Your task to perform on an android device: uninstall "Microsoft Excel" Image 0: 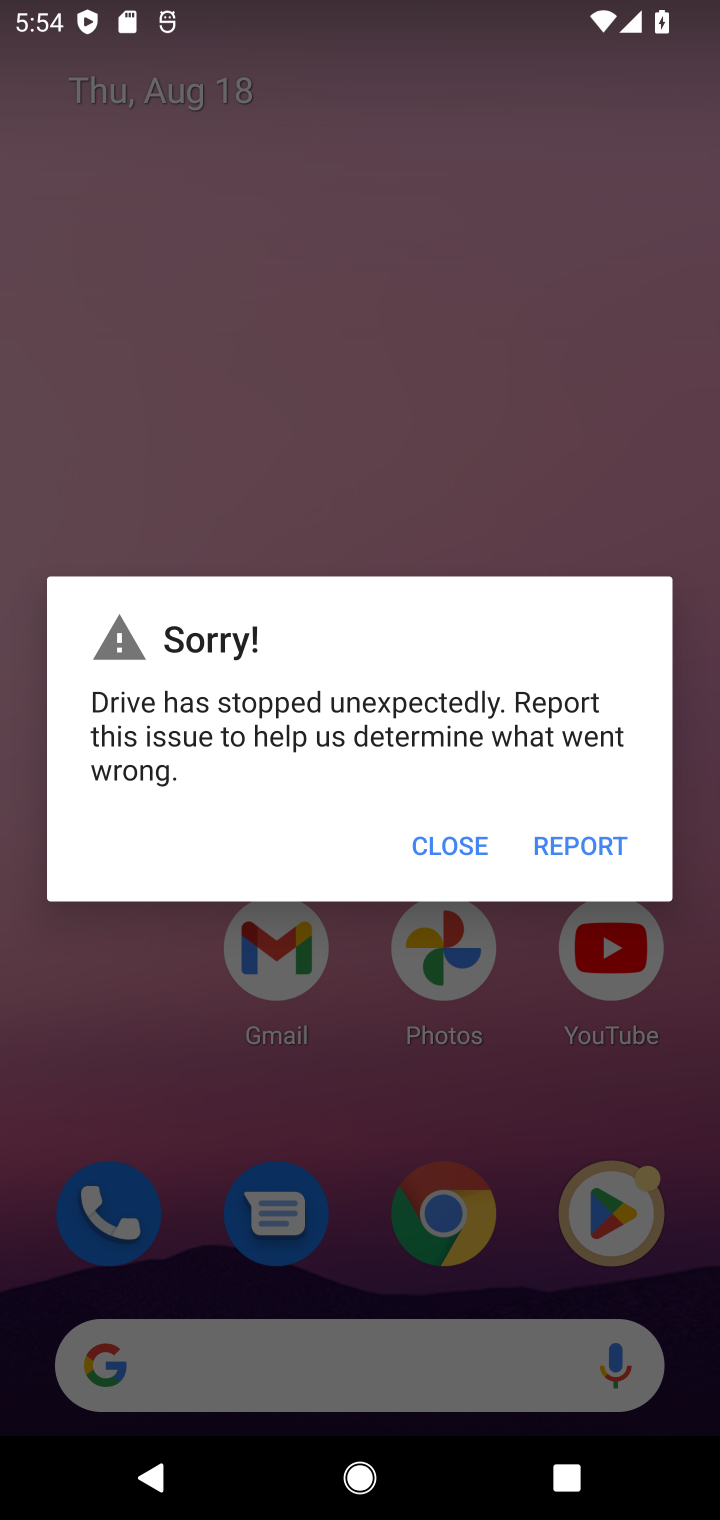
Step 0: click (443, 858)
Your task to perform on an android device: uninstall "Microsoft Excel" Image 1: 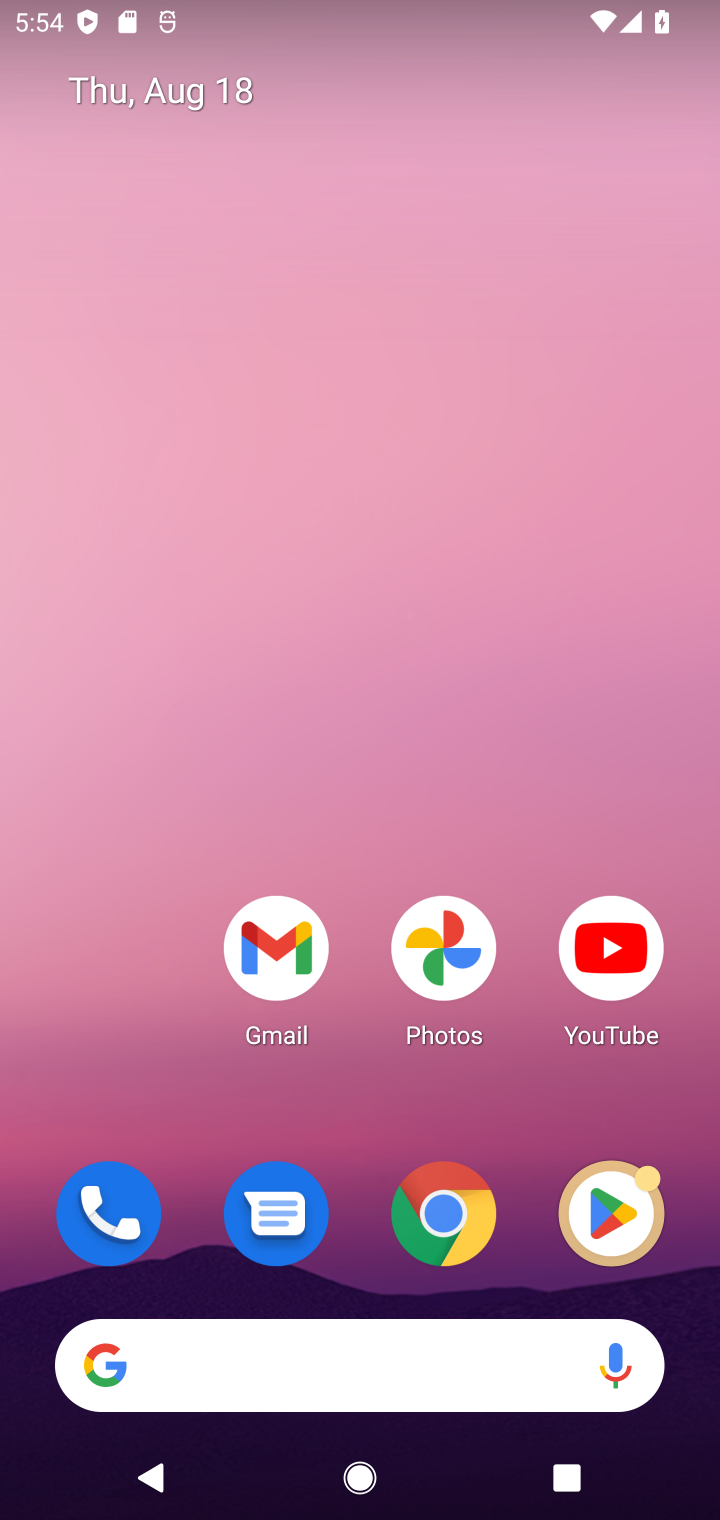
Step 1: click (596, 1200)
Your task to perform on an android device: uninstall "Microsoft Excel" Image 2: 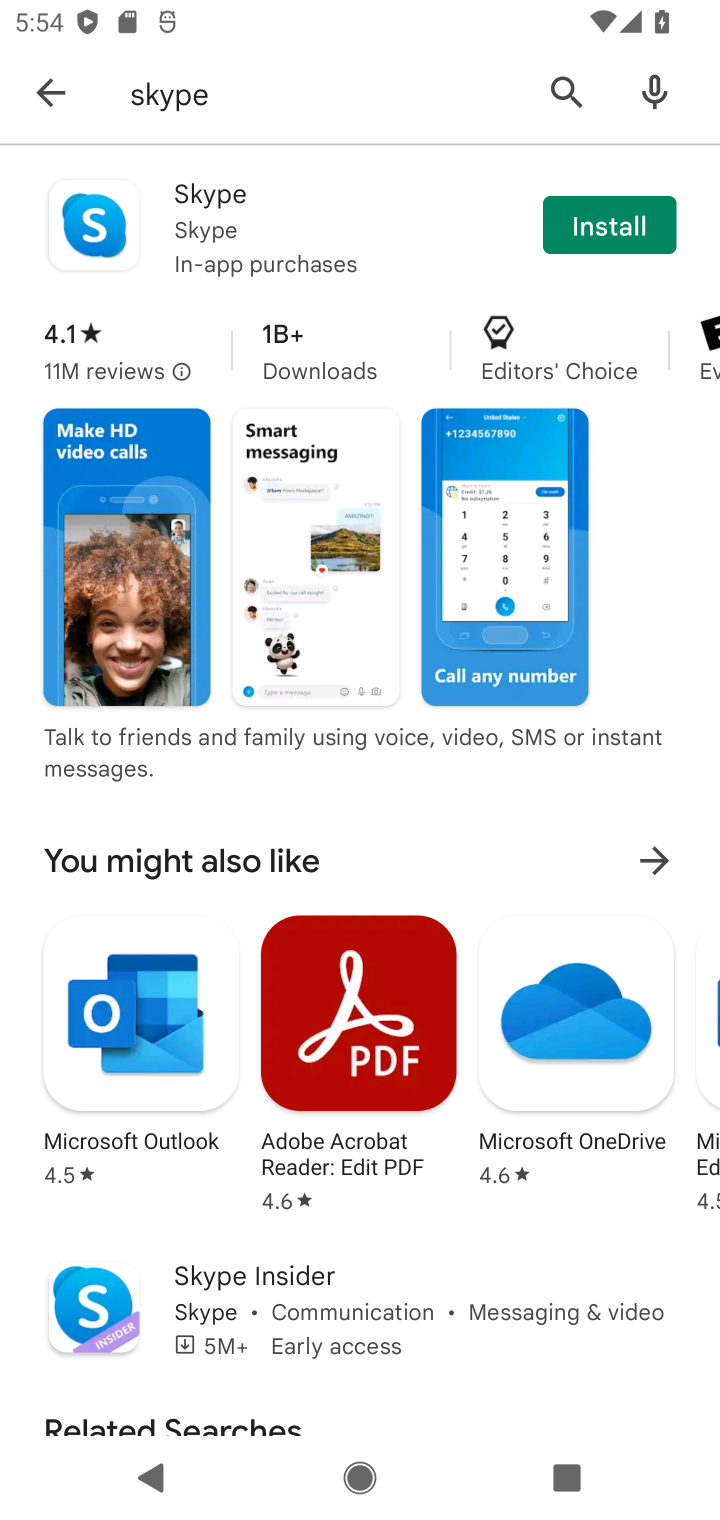
Step 2: click (542, 94)
Your task to perform on an android device: uninstall "Microsoft Excel" Image 3: 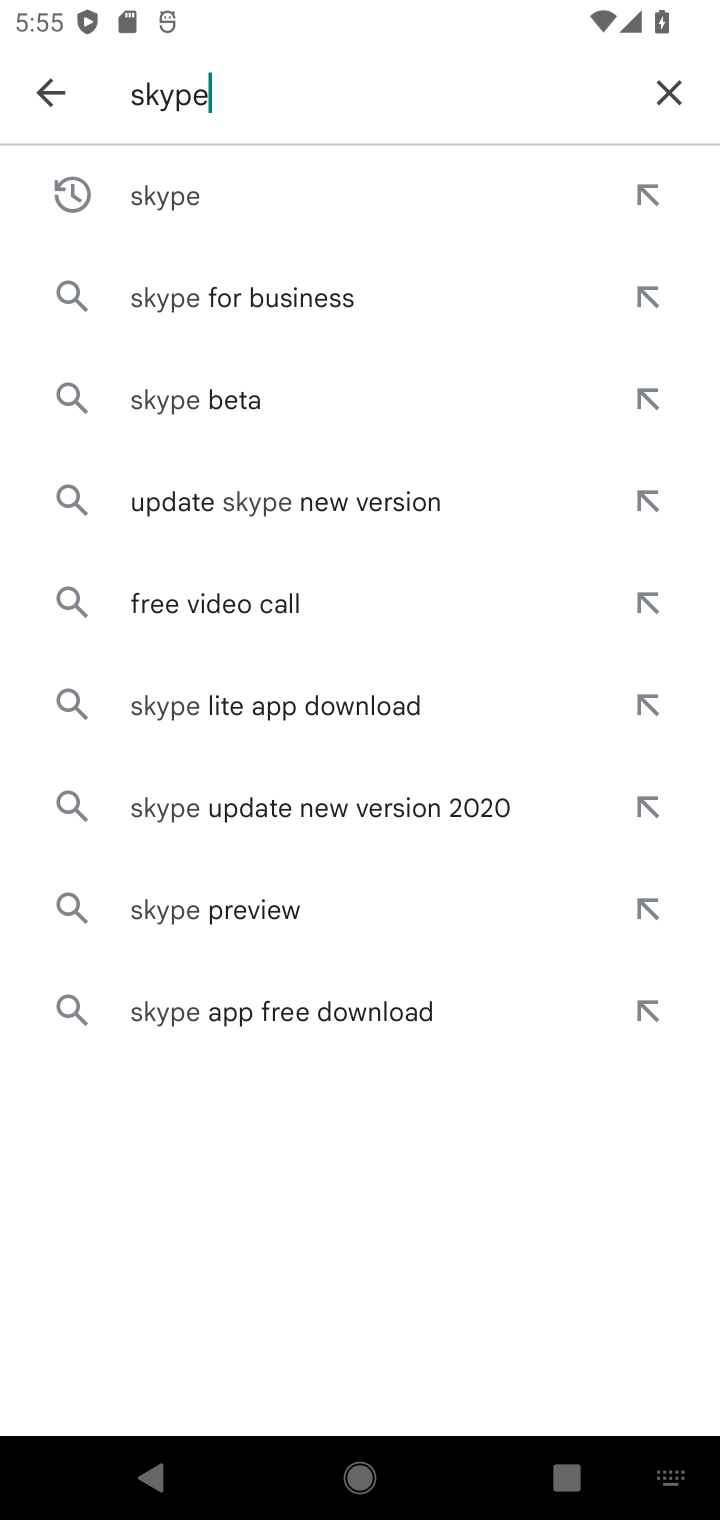
Step 3: click (663, 94)
Your task to perform on an android device: uninstall "Microsoft Excel" Image 4: 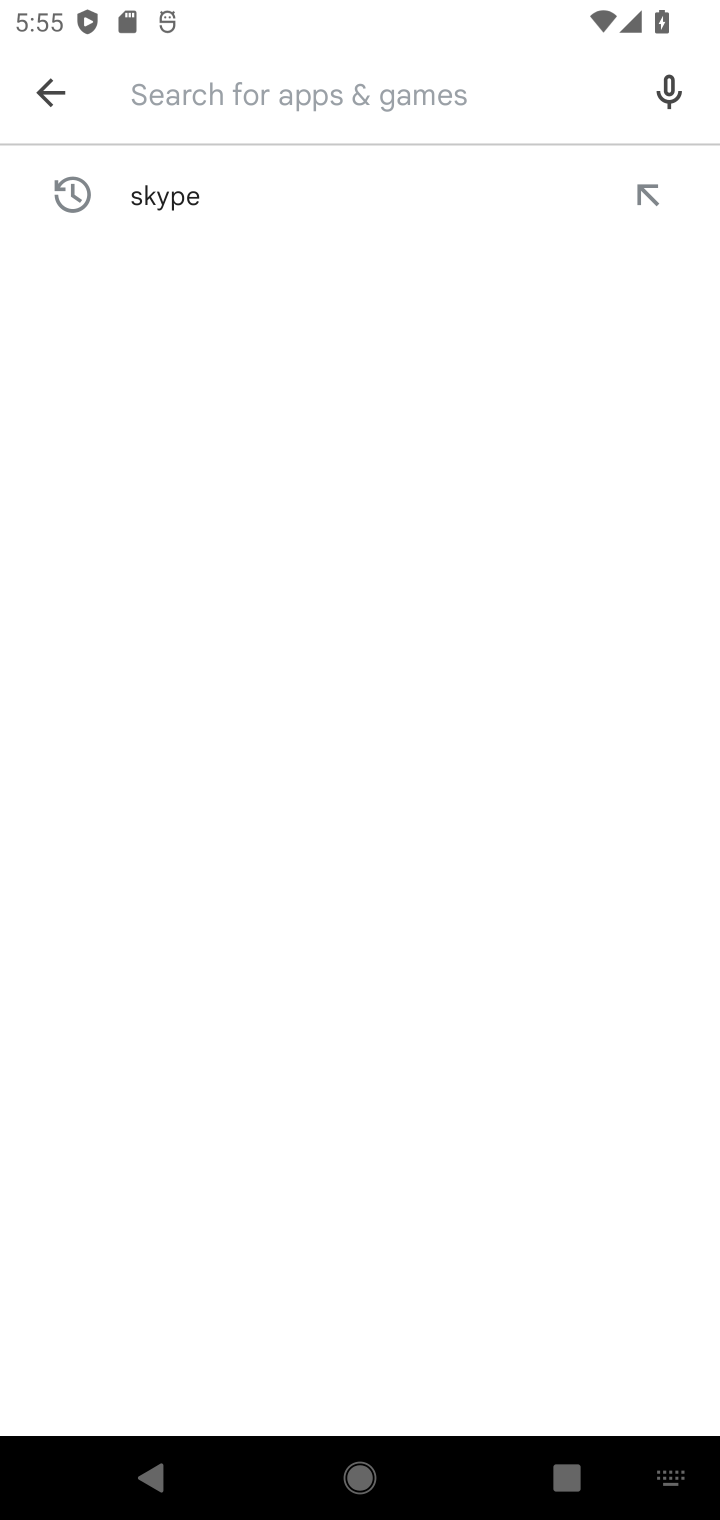
Step 4: type "Microsoft Excel"
Your task to perform on an android device: uninstall "Microsoft Excel" Image 5: 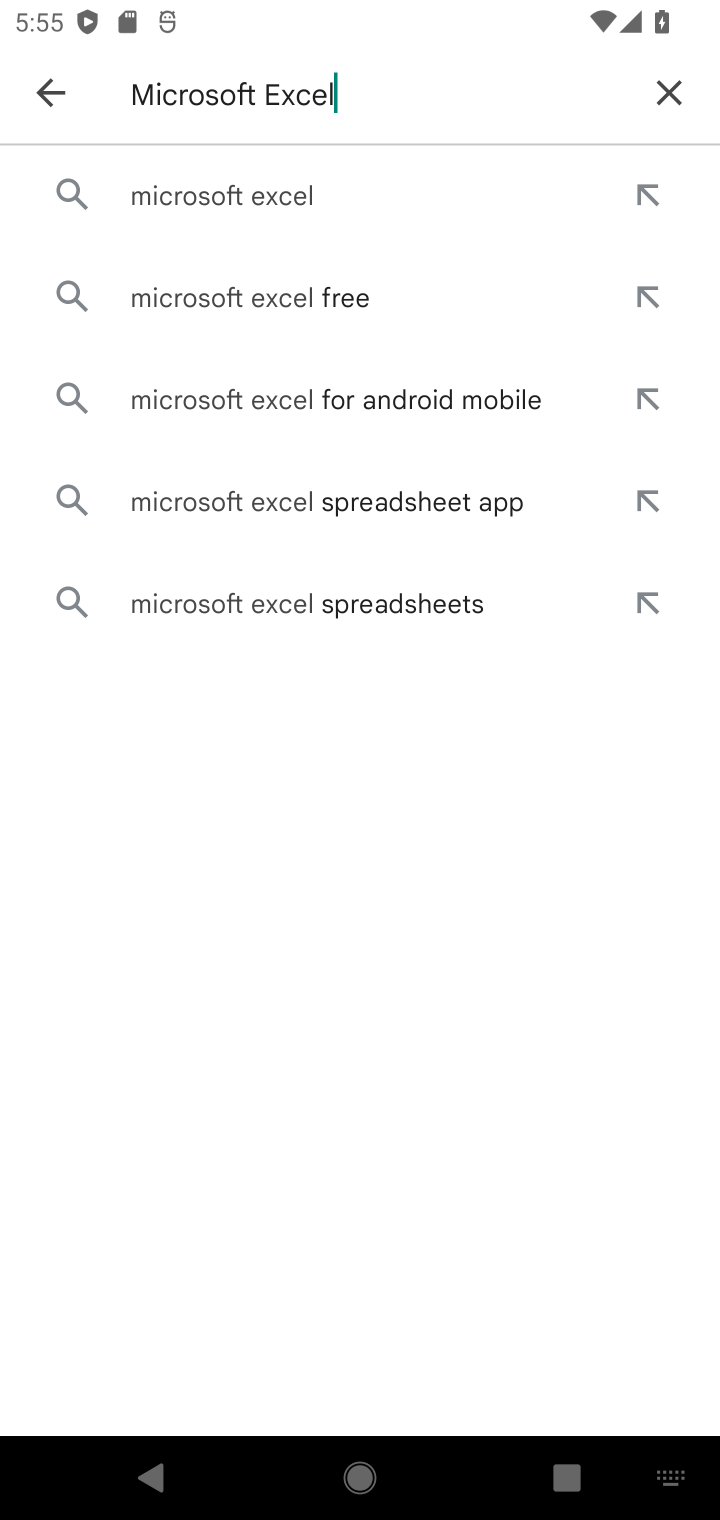
Step 5: click (341, 189)
Your task to perform on an android device: uninstall "Microsoft Excel" Image 6: 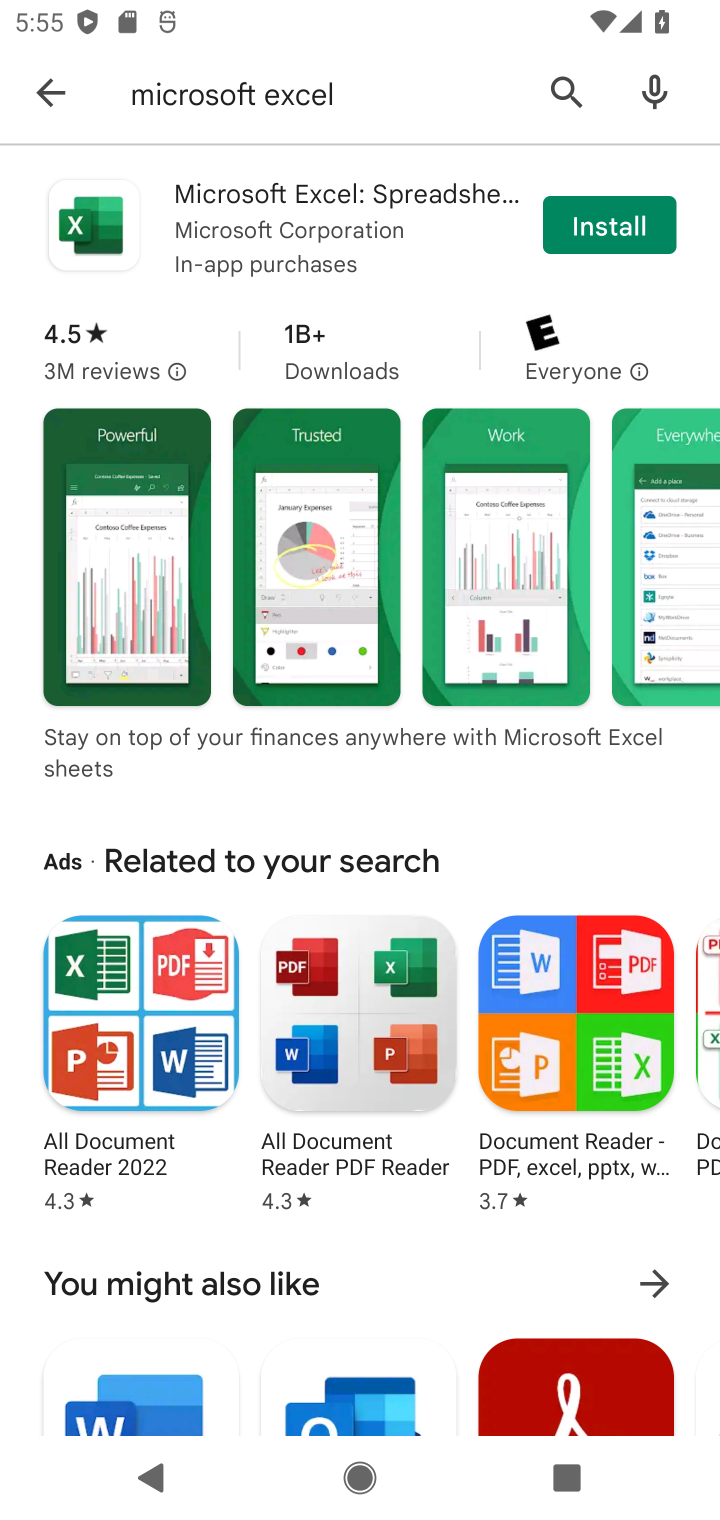
Step 6: task complete